Your task to perform on an android device: Clear the cart on costco. Search for logitech g903 on costco, select the first entry, and add it to the cart. Image 0: 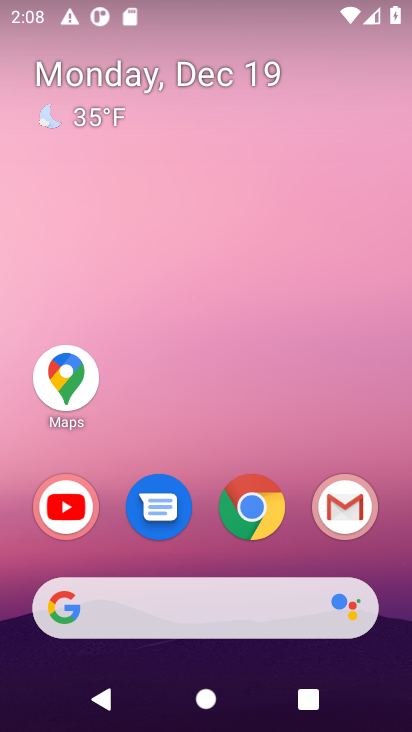
Step 0: click (253, 511)
Your task to perform on an android device: Clear the cart on costco. Search for logitech g903 on costco, select the first entry, and add it to the cart. Image 1: 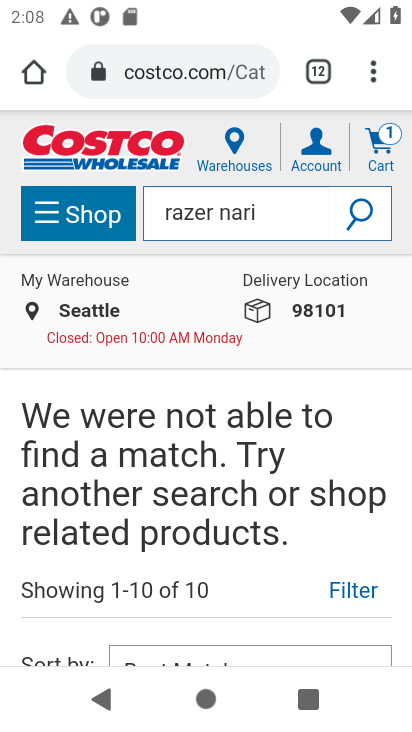
Step 1: click (376, 143)
Your task to perform on an android device: Clear the cart on costco. Search for logitech g903 on costco, select the first entry, and add it to the cart. Image 2: 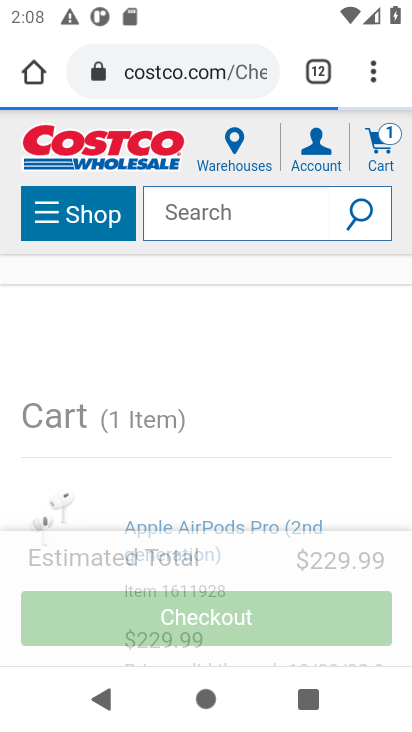
Step 2: drag from (199, 452) to (199, 191)
Your task to perform on an android device: Clear the cart on costco. Search for logitech g903 on costco, select the first entry, and add it to the cart. Image 3: 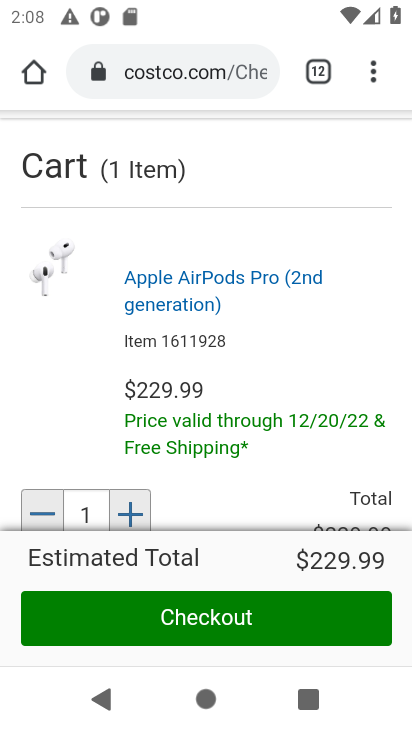
Step 3: drag from (190, 395) to (192, 173)
Your task to perform on an android device: Clear the cart on costco. Search for logitech g903 on costco, select the first entry, and add it to the cart. Image 4: 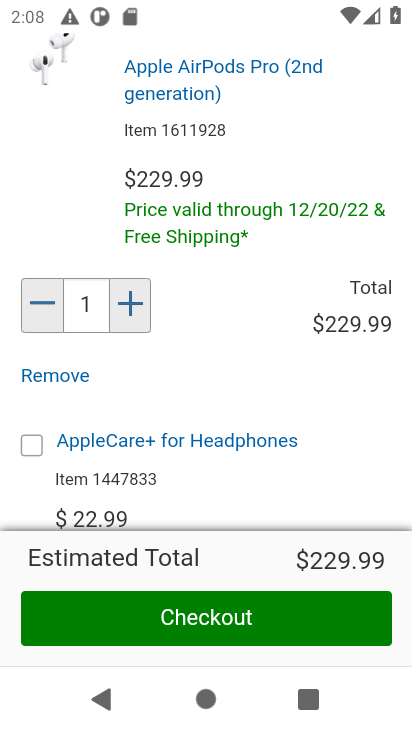
Step 4: drag from (200, 415) to (195, 189)
Your task to perform on an android device: Clear the cart on costco. Search for logitech g903 on costco, select the first entry, and add it to the cart. Image 5: 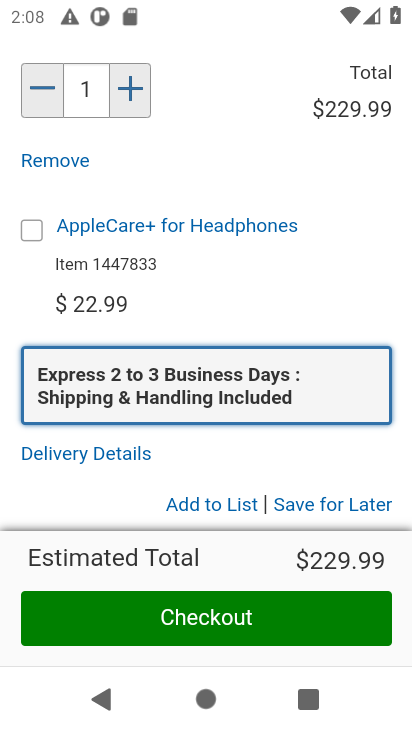
Step 5: drag from (265, 388) to (269, 250)
Your task to perform on an android device: Clear the cart on costco. Search for logitech g903 on costco, select the first entry, and add it to the cart. Image 6: 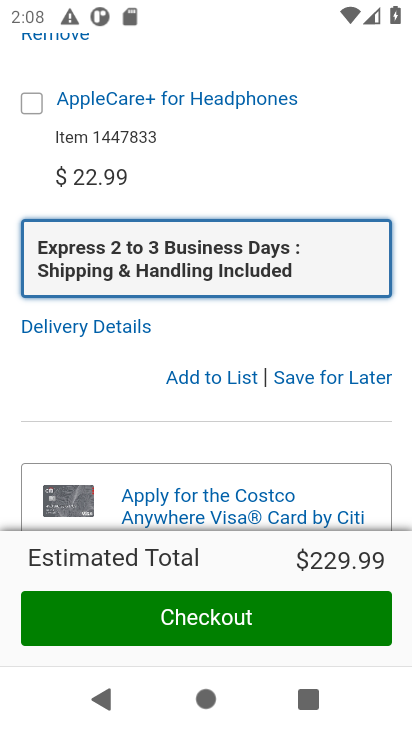
Step 6: click (318, 377)
Your task to perform on an android device: Clear the cart on costco. Search for logitech g903 on costco, select the first entry, and add it to the cart. Image 7: 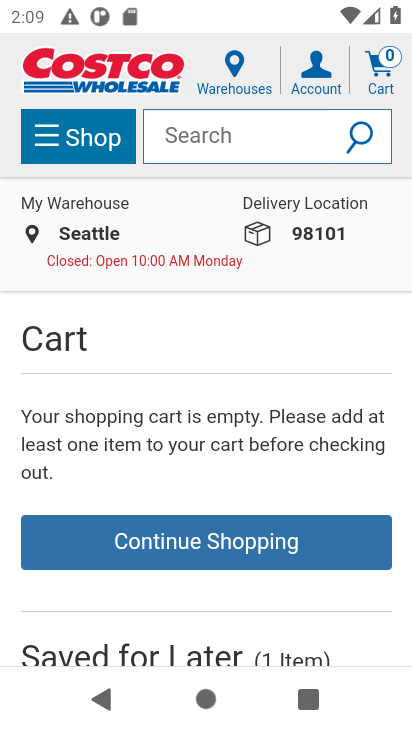
Step 7: click (212, 147)
Your task to perform on an android device: Clear the cart on costco. Search for logitech g903 on costco, select the first entry, and add it to the cart. Image 8: 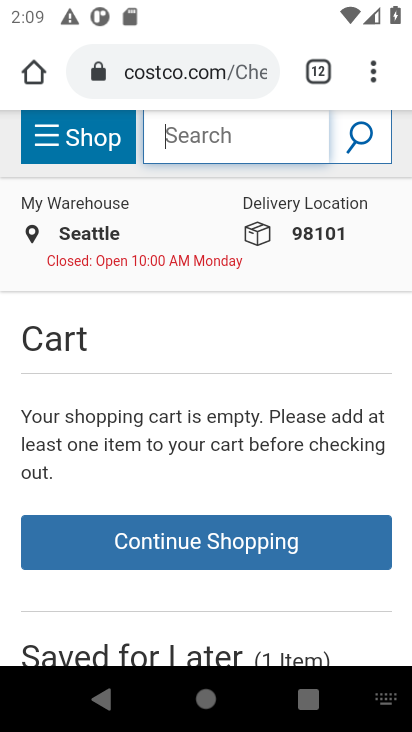
Step 8: type "logitech g903"
Your task to perform on an android device: Clear the cart on costco. Search for logitech g903 on costco, select the first entry, and add it to the cart. Image 9: 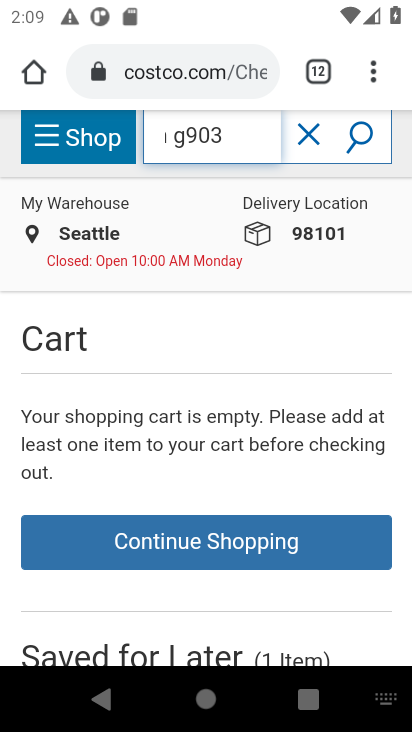
Step 9: click (354, 148)
Your task to perform on an android device: Clear the cart on costco. Search for logitech g903 on costco, select the first entry, and add it to the cart. Image 10: 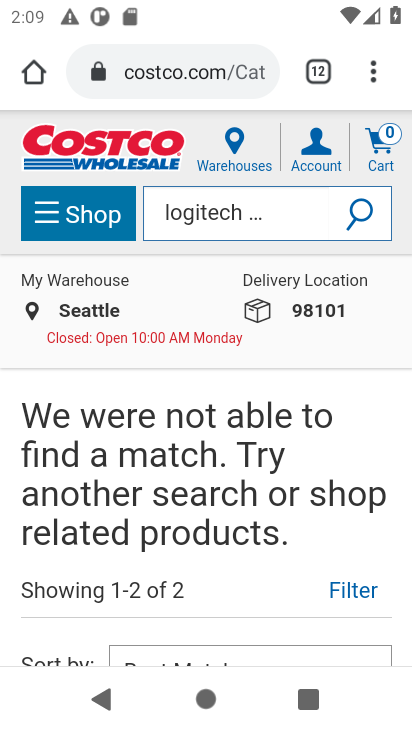
Step 10: click (351, 219)
Your task to perform on an android device: Clear the cart on costco. Search for logitech g903 on costco, select the first entry, and add it to the cart. Image 11: 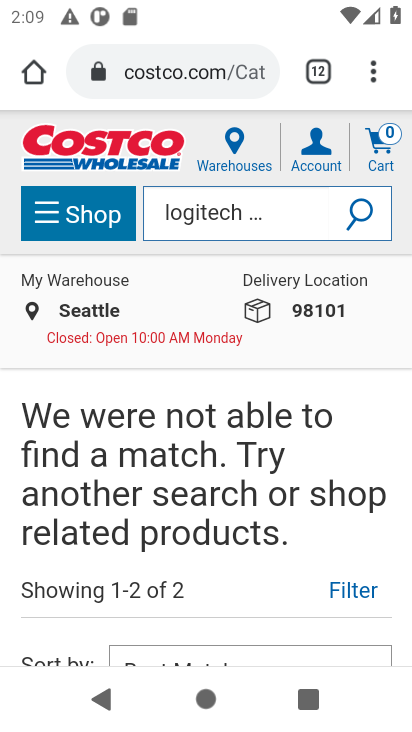
Step 11: task complete